Your task to perform on an android device: What's on my calendar today? Image 0: 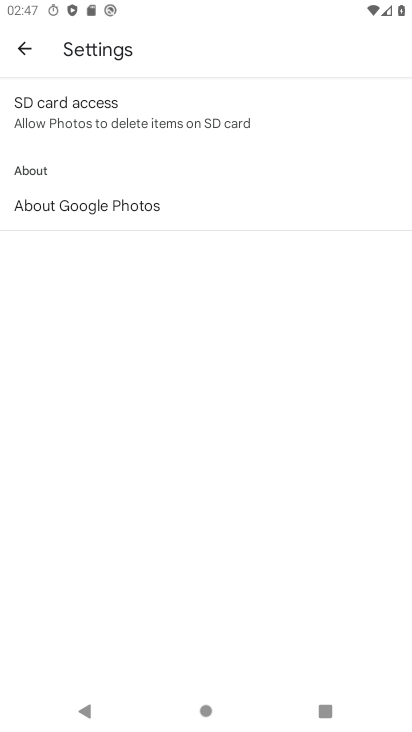
Step 0: drag from (12, 498) to (179, 164)
Your task to perform on an android device: What's on my calendar today? Image 1: 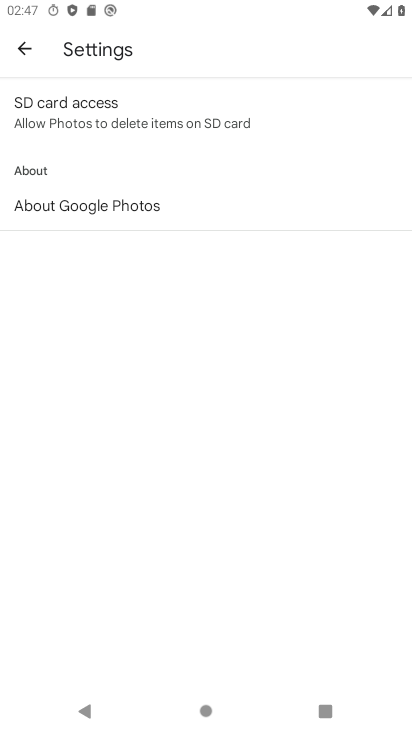
Step 1: press home button
Your task to perform on an android device: What's on my calendar today? Image 2: 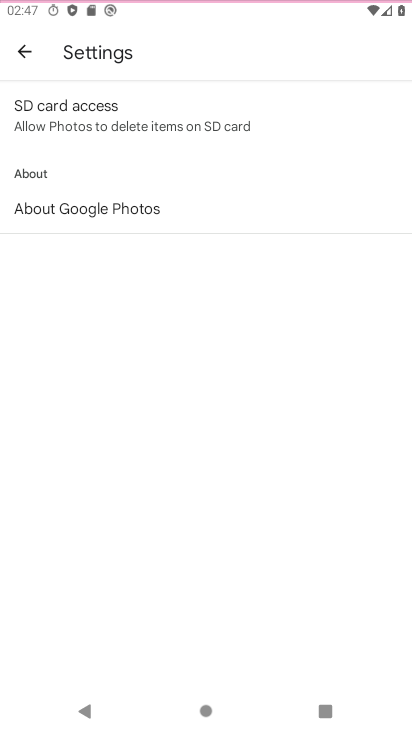
Step 2: drag from (153, 580) to (233, 284)
Your task to perform on an android device: What's on my calendar today? Image 3: 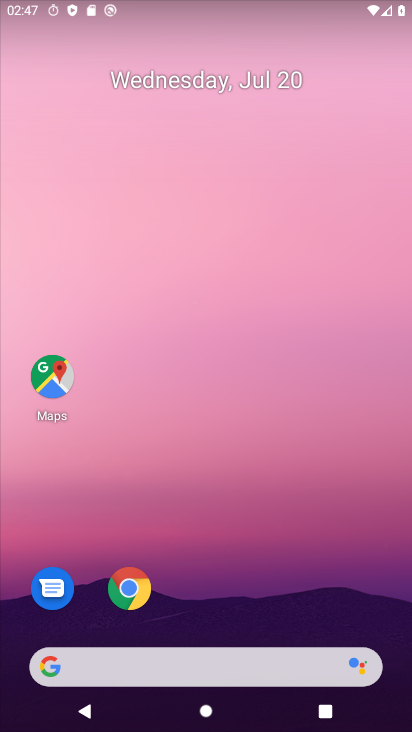
Step 3: drag from (201, 611) to (282, 156)
Your task to perform on an android device: What's on my calendar today? Image 4: 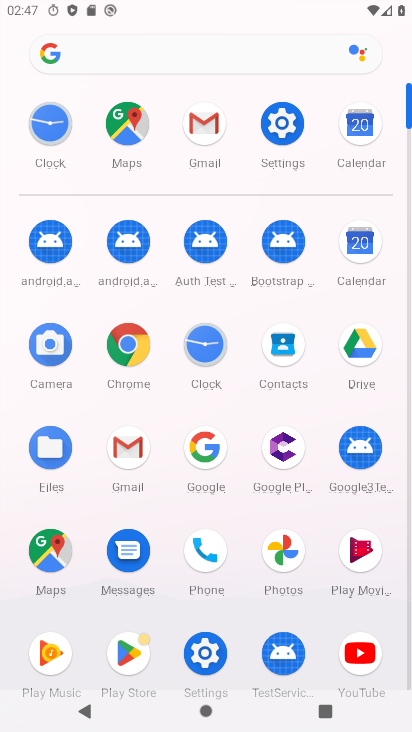
Step 4: click (361, 241)
Your task to perform on an android device: What's on my calendar today? Image 5: 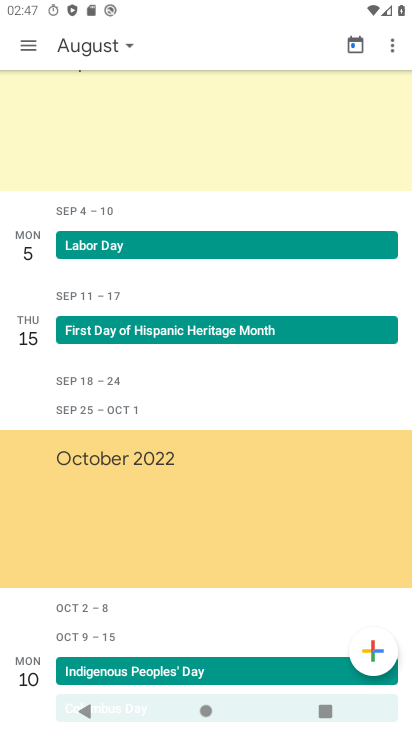
Step 5: click (91, 45)
Your task to perform on an android device: What's on my calendar today? Image 6: 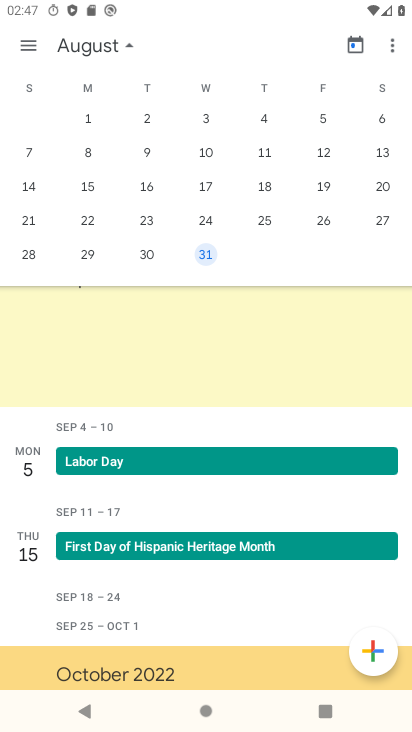
Step 6: click (354, 45)
Your task to perform on an android device: What's on my calendar today? Image 7: 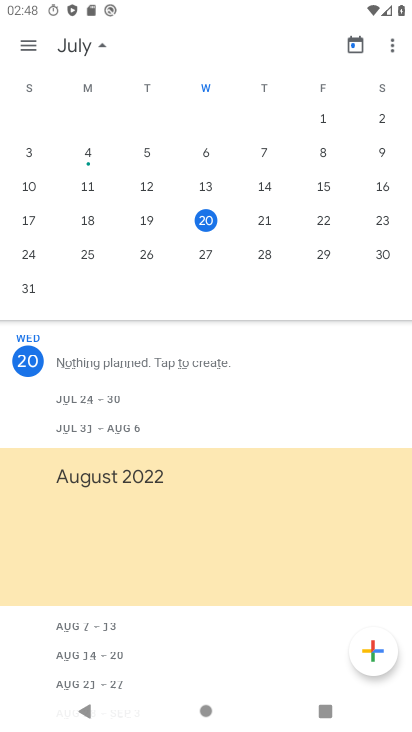
Step 7: task complete